Your task to perform on an android device: Go to Maps Image 0: 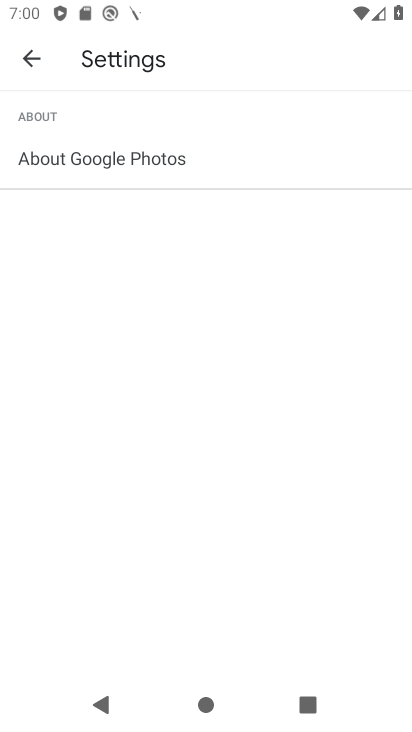
Step 0: press home button
Your task to perform on an android device: Go to Maps Image 1: 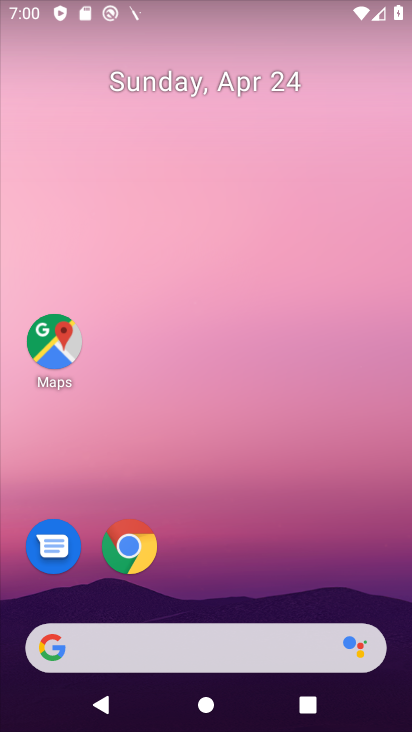
Step 1: click (55, 342)
Your task to perform on an android device: Go to Maps Image 2: 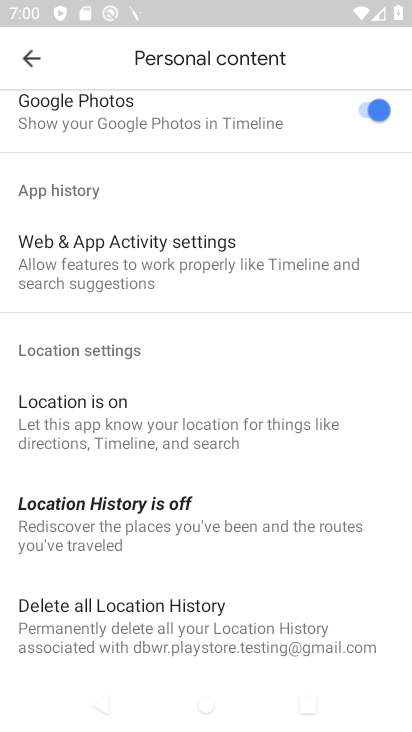
Step 2: click (31, 56)
Your task to perform on an android device: Go to Maps Image 3: 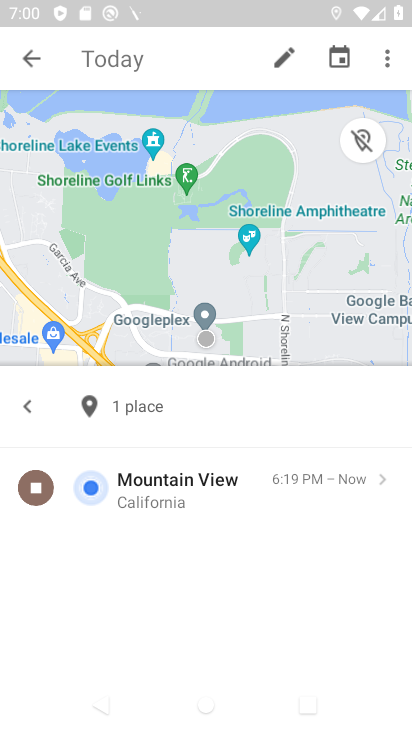
Step 3: click (31, 61)
Your task to perform on an android device: Go to Maps Image 4: 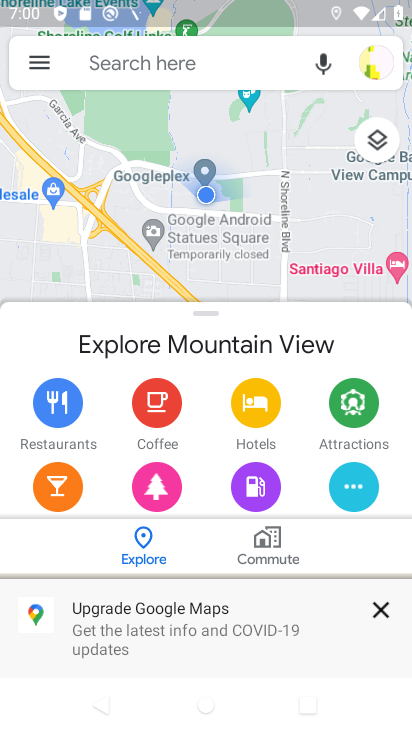
Step 4: task complete